Your task to perform on an android device: Is it going to rain this weekend? Image 0: 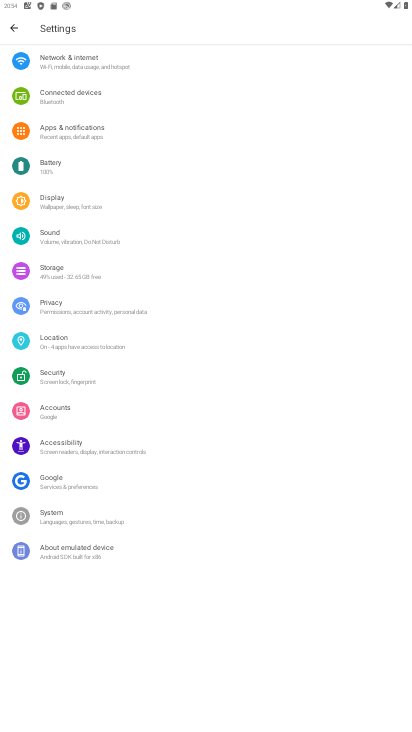
Step 0: press home button
Your task to perform on an android device: Is it going to rain this weekend? Image 1: 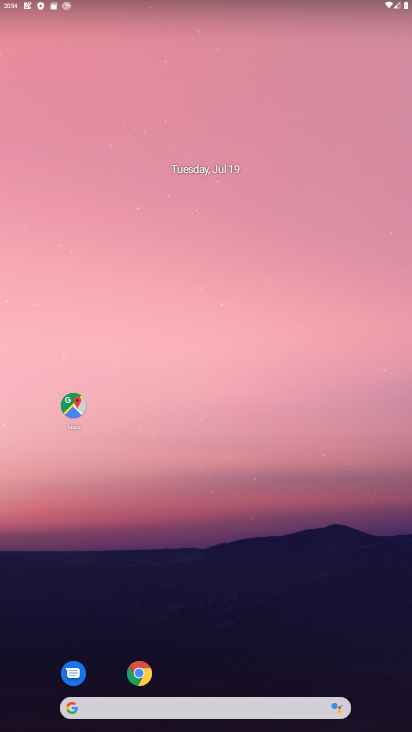
Step 1: drag from (227, 669) to (234, 30)
Your task to perform on an android device: Is it going to rain this weekend? Image 2: 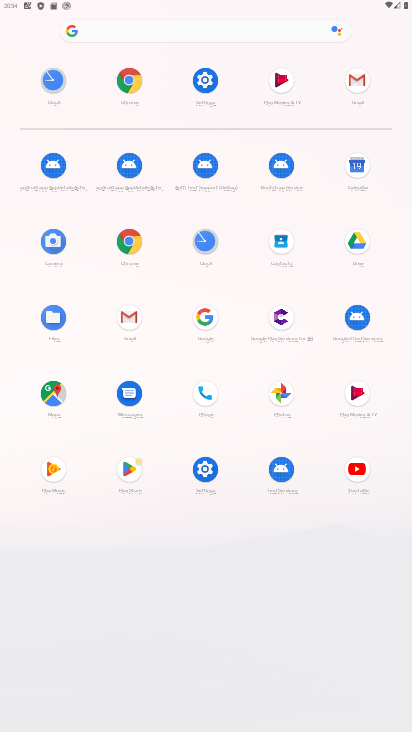
Step 2: click (210, 32)
Your task to perform on an android device: Is it going to rain this weekend? Image 3: 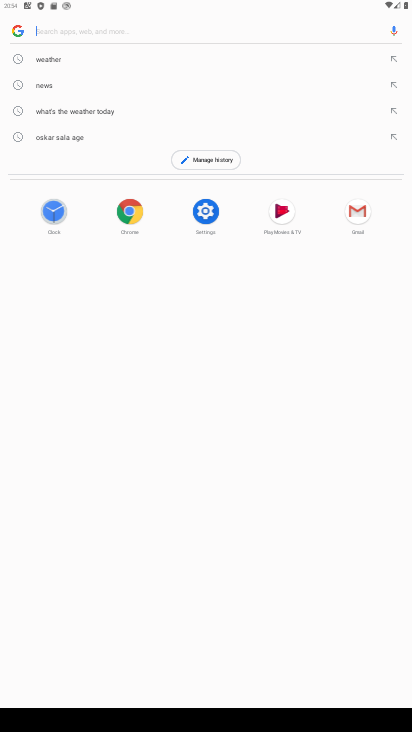
Step 3: type "weather"
Your task to perform on an android device: Is it going to rain this weekend? Image 4: 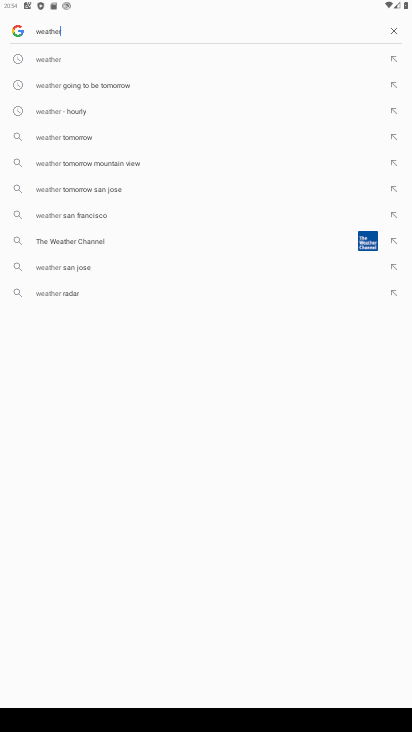
Step 4: click (61, 65)
Your task to perform on an android device: Is it going to rain this weekend? Image 5: 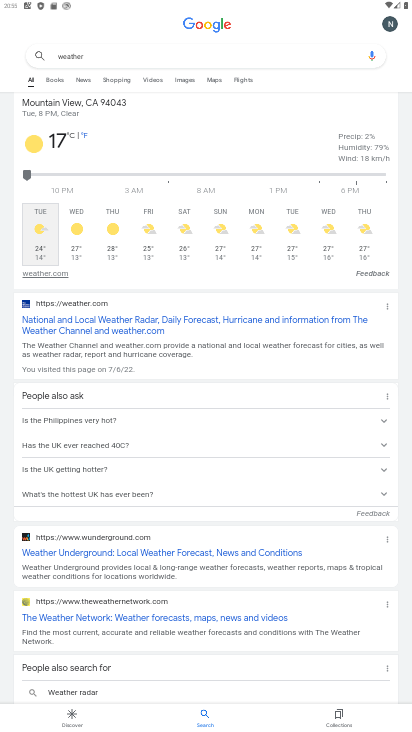
Step 5: task complete